Your task to perform on an android device: Open wifi settings Image 0: 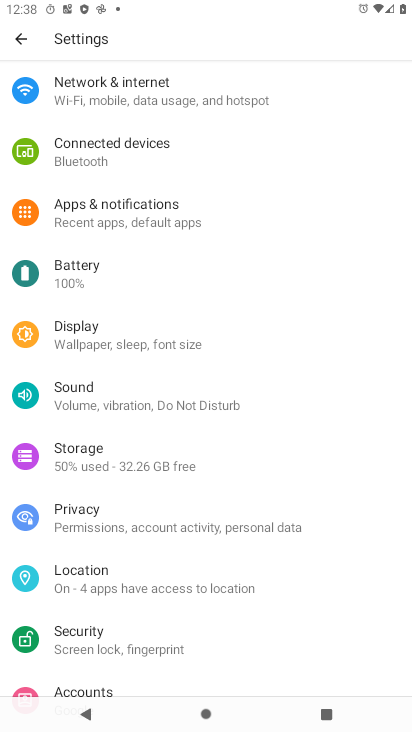
Step 0: drag from (249, 213) to (279, 456)
Your task to perform on an android device: Open wifi settings Image 1: 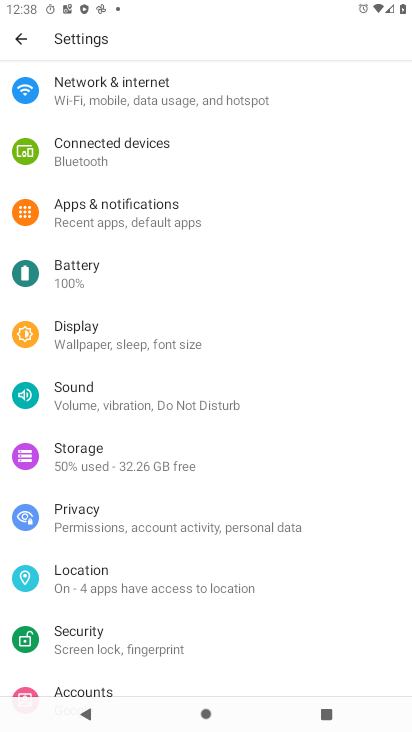
Step 1: click (97, 103)
Your task to perform on an android device: Open wifi settings Image 2: 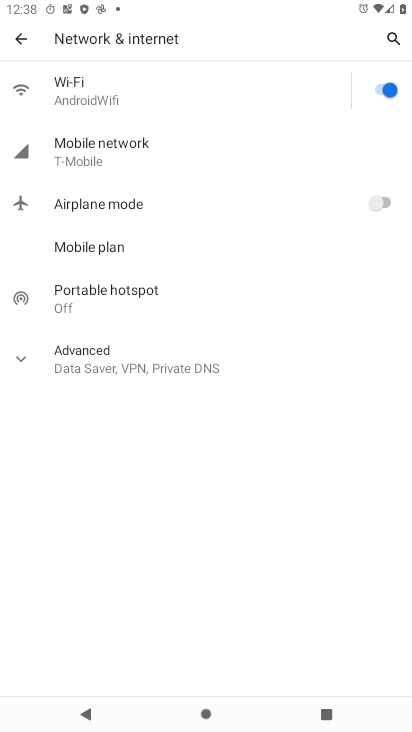
Step 2: click (131, 87)
Your task to perform on an android device: Open wifi settings Image 3: 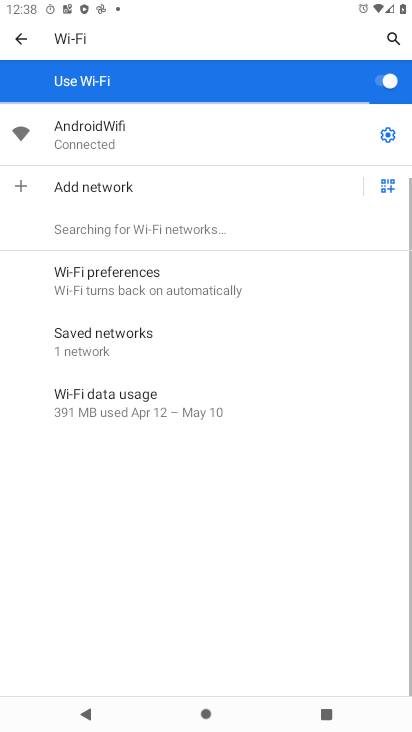
Step 3: click (388, 128)
Your task to perform on an android device: Open wifi settings Image 4: 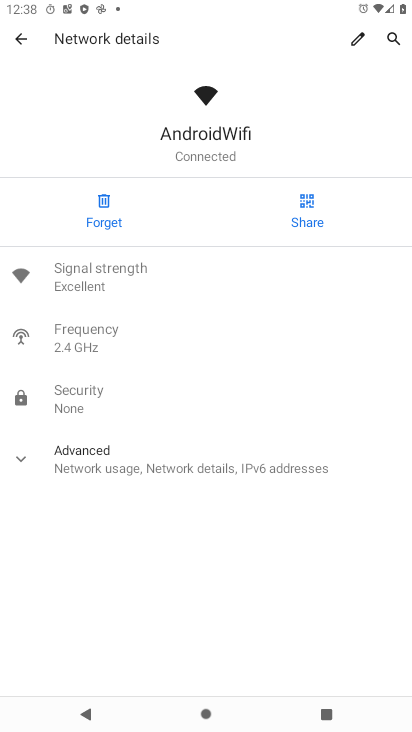
Step 4: task complete